Your task to perform on an android device: turn pop-ups on in chrome Image 0: 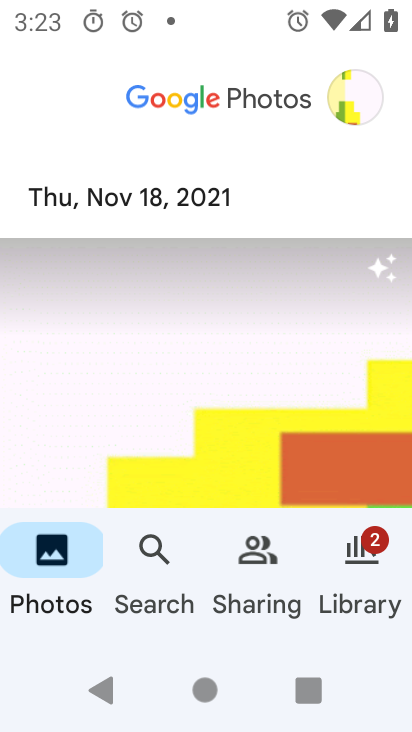
Step 0: press home button
Your task to perform on an android device: turn pop-ups on in chrome Image 1: 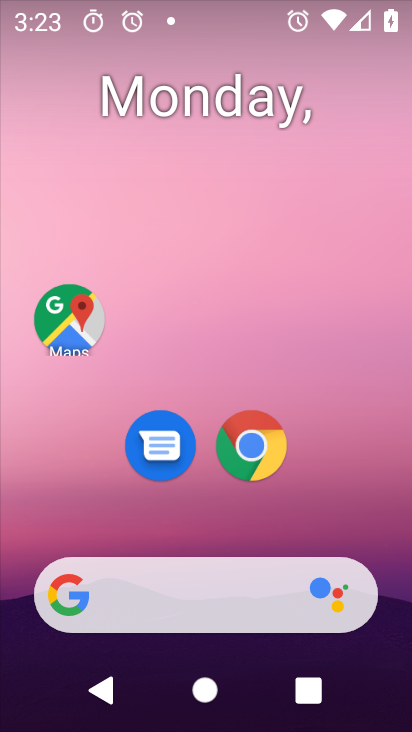
Step 1: drag from (149, 547) to (165, 165)
Your task to perform on an android device: turn pop-ups on in chrome Image 2: 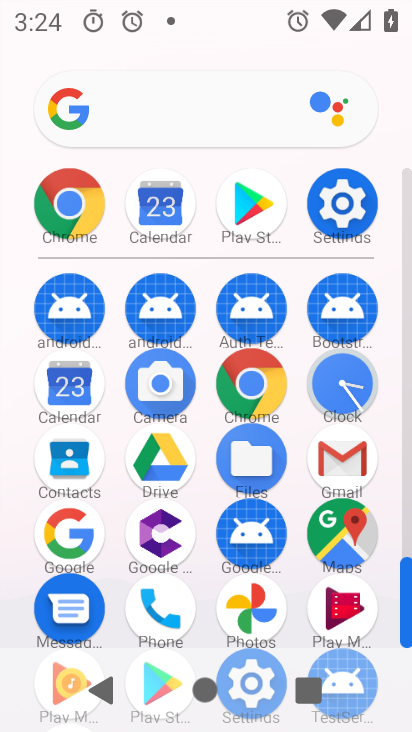
Step 2: click (83, 202)
Your task to perform on an android device: turn pop-ups on in chrome Image 3: 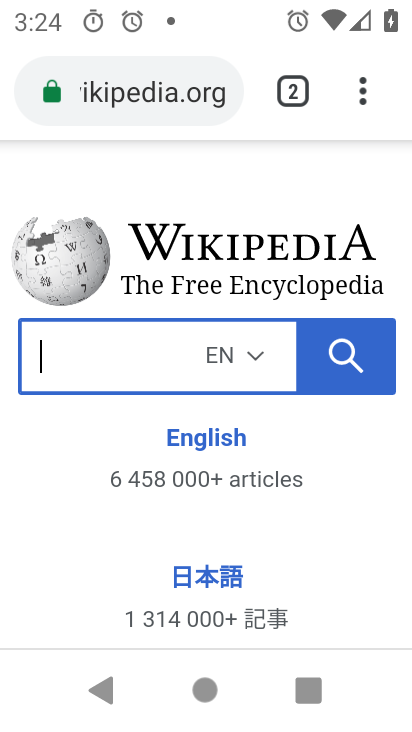
Step 3: drag from (355, 86) to (148, 472)
Your task to perform on an android device: turn pop-ups on in chrome Image 4: 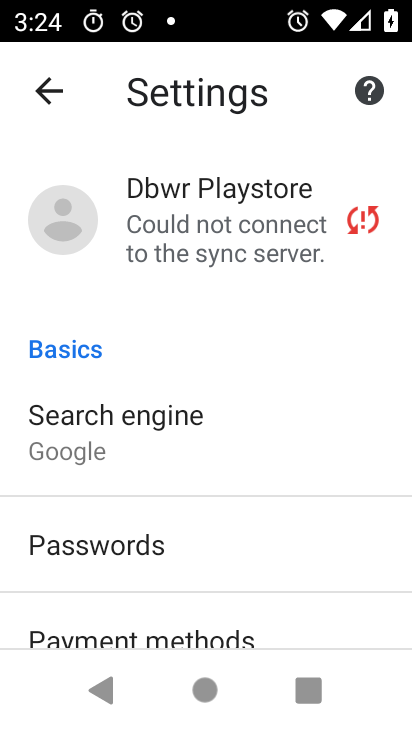
Step 4: drag from (223, 577) to (214, 165)
Your task to perform on an android device: turn pop-ups on in chrome Image 5: 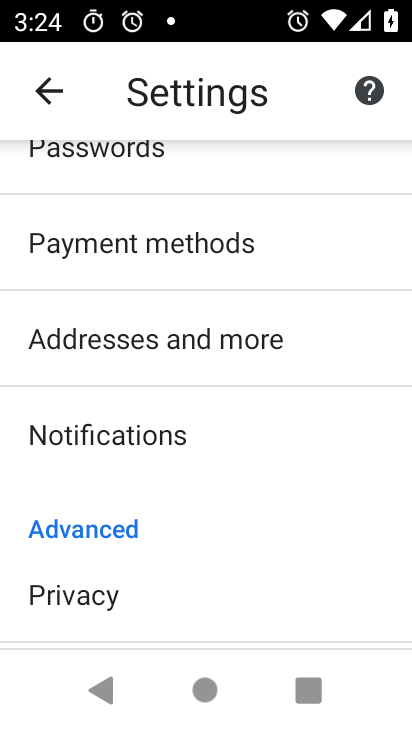
Step 5: drag from (193, 556) to (152, 256)
Your task to perform on an android device: turn pop-ups on in chrome Image 6: 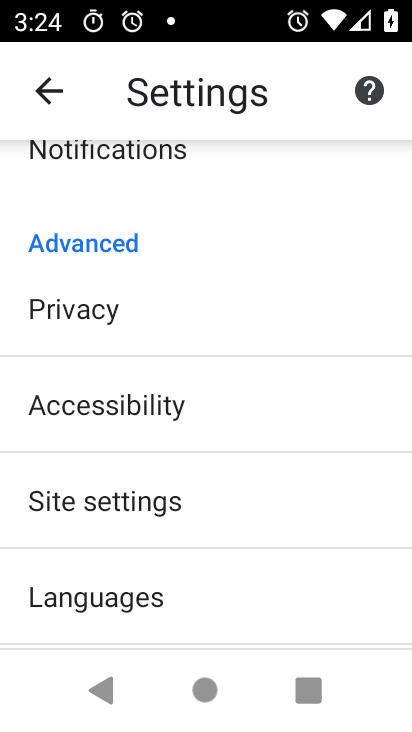
Step 6: click (134, 520)
Your task to perform on an android device: turn pop-ups on in chrome Image 7: 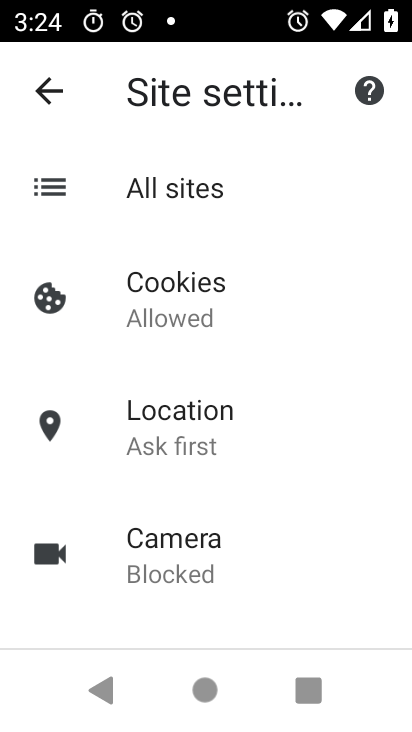
Step 7: drag from (224, 472) to (168, 92)
Your task to perform on an android device: turn pop-ups on in chrome Image 8: 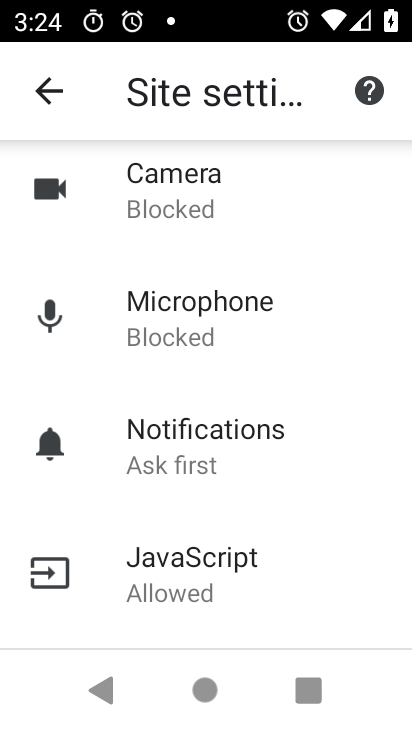
Step 8: drag from (178, 505) to (134, 96)
Your task to perform on an android device: turn pop-ups on in chrome Image 9: 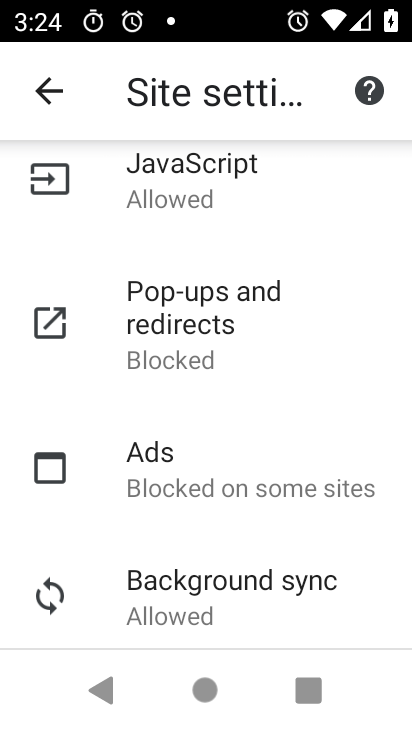
Step 9: click (140, 328)
Your task to perform on an android device: turn pop-ups on in chrome Image 10: 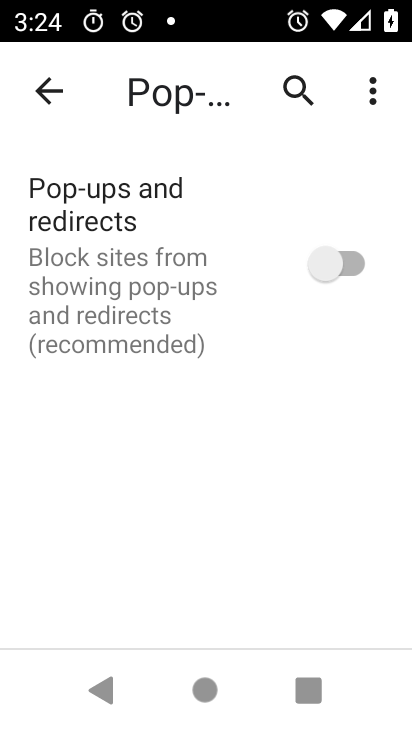
Step 10: click (331, 254)
Your task to perform on an android device: turn pop-ups on in chrome Image 11: 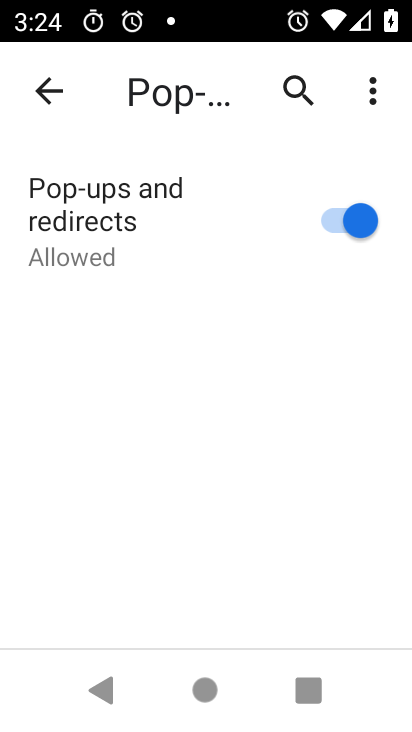
Step 11: task complete